Your task to perform on an android device: Search for 3d printed chess sets on Etsy. Image 0: 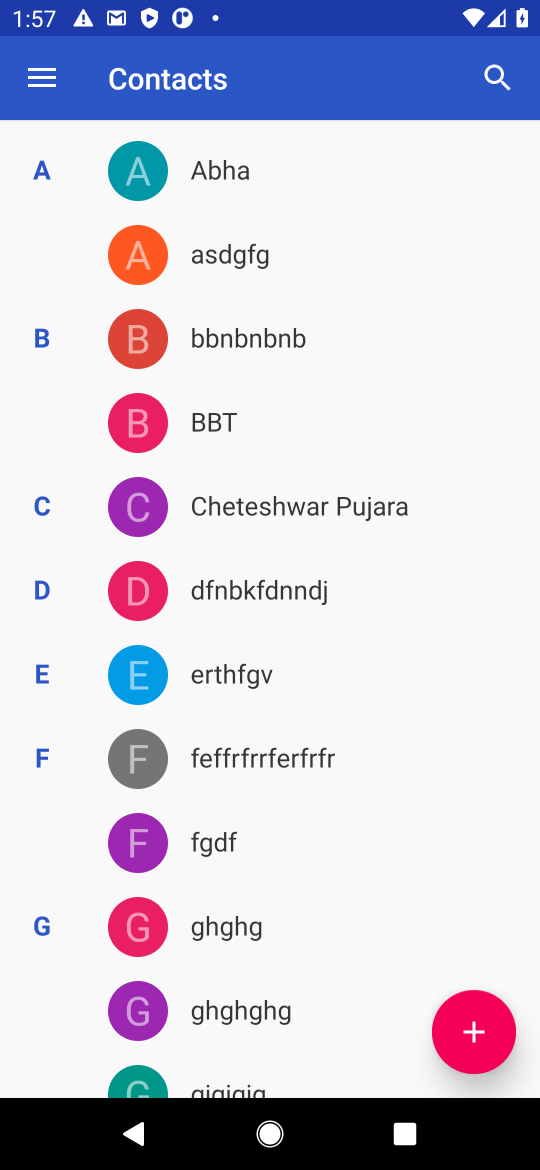
Step 0: press home button
Your task to perform on an android device: Search for 3d printed chess sets on Etsy. Image 1: 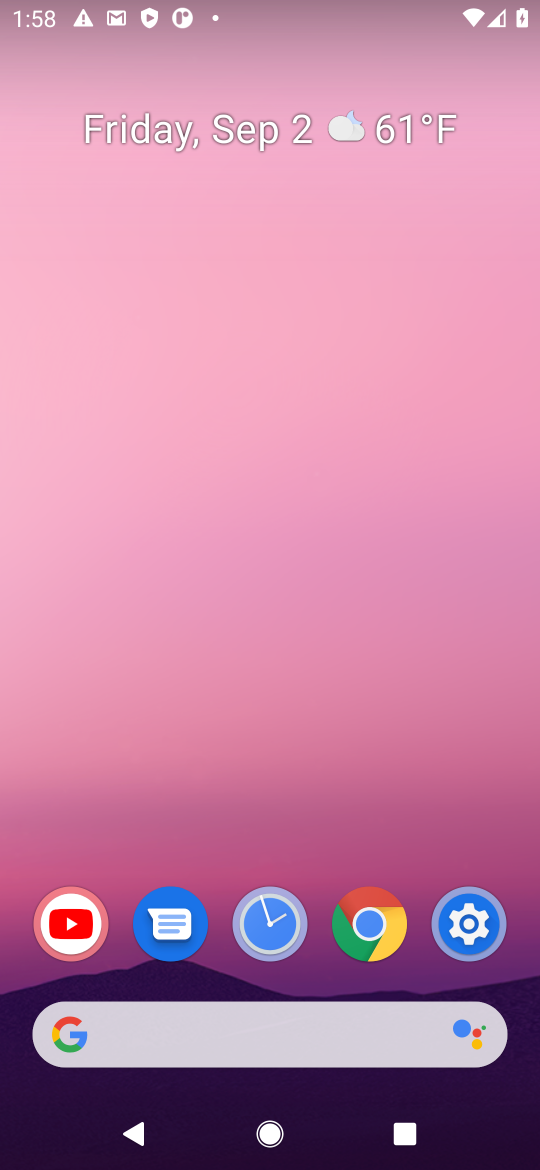
Step 1: click (382, 1025)
Your task to perform on an android device: Search for 3d printed chess sets on Etsy. Image 2: 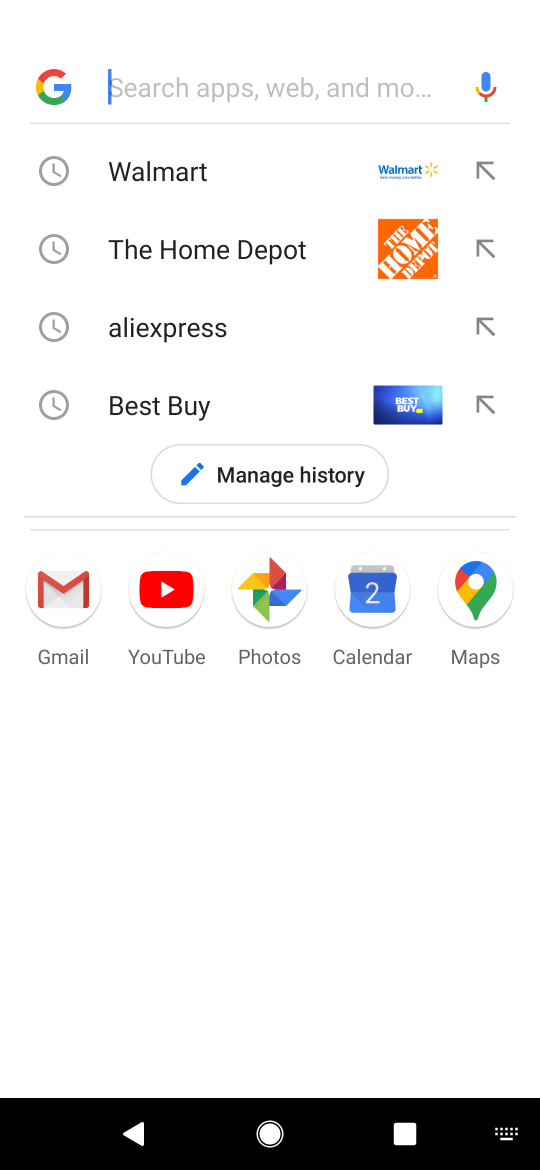
Step 2: press enter
Your task to perform on an android device: Search for 3d printed chess sets on Etsy. Image 3: 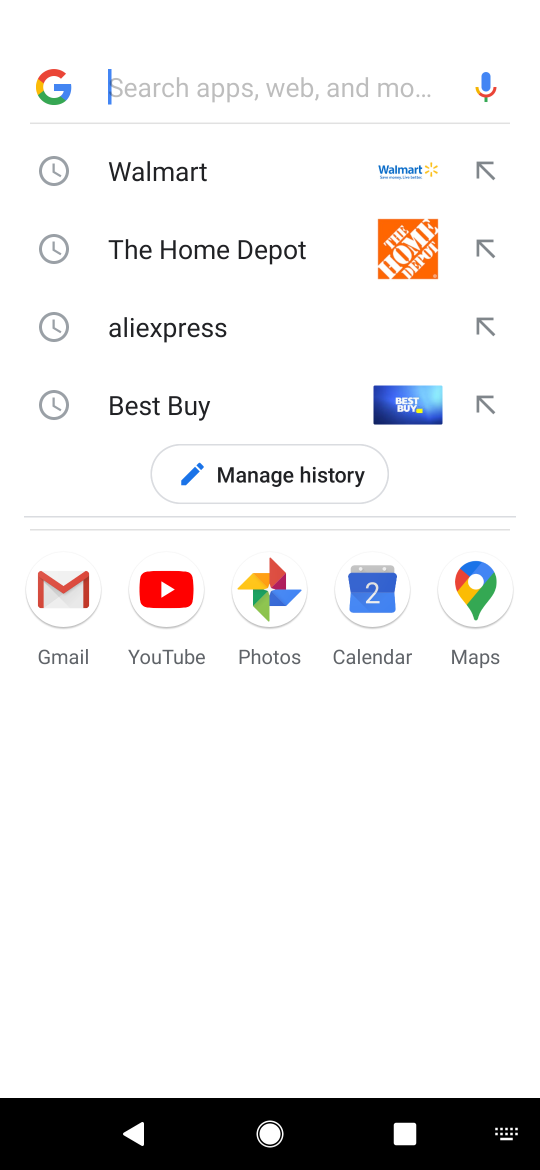
Step 3: type "etsy"
Your task to perform on an android device: Search for 3d printed chess sets on Etsy. Image 4: 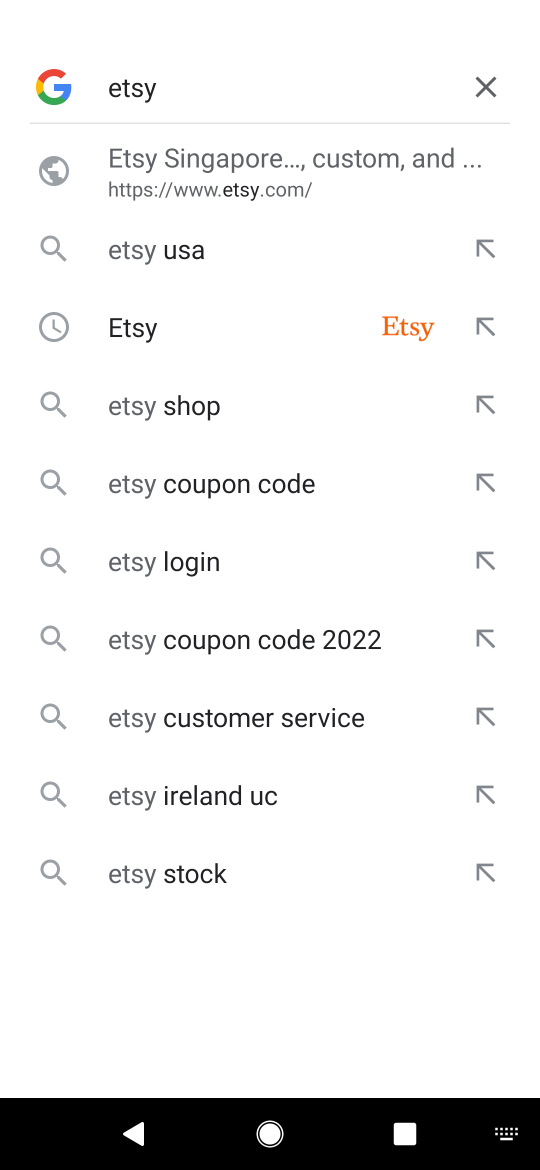
Step 4: click (295, 323)
Your task to perform on an android device: Search for 3d printed chess sets on Etsy. Image 5: 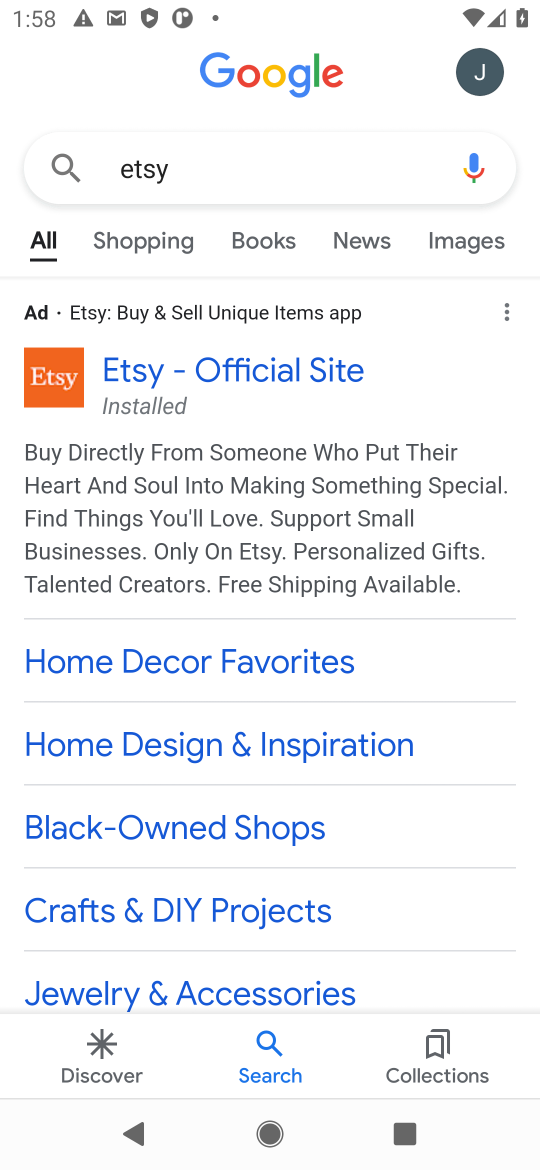
Step 5: click (308, 363)
Your task to perform on an android device: Search for 3d printed chess sets on Etsy. Image 6: 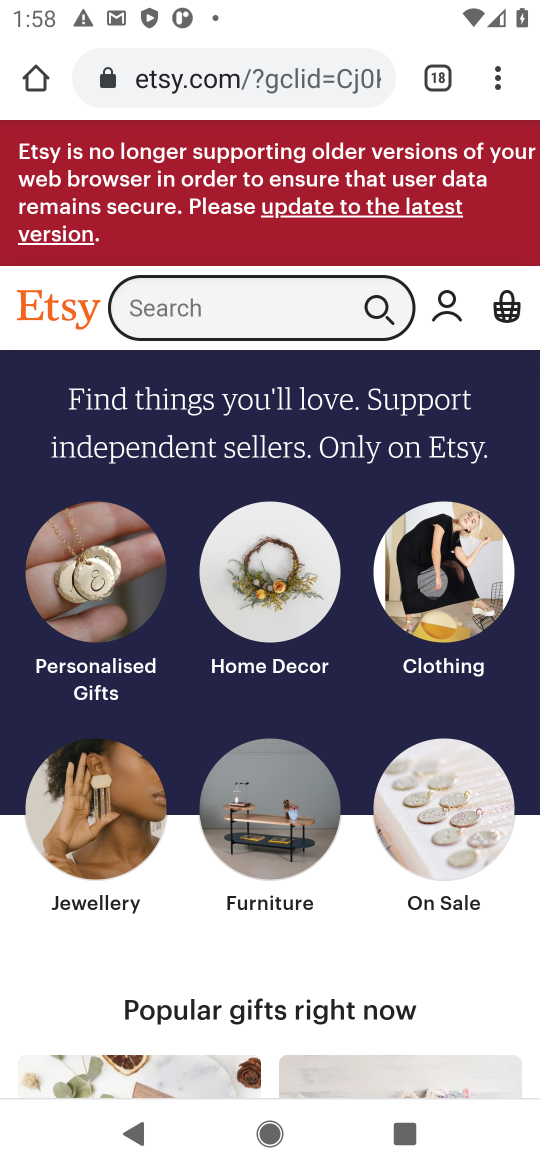
Step 6: click (271, 302)
Your task to perform on an android device: Search for 3d printed chess sets on Etsy. Image 7: 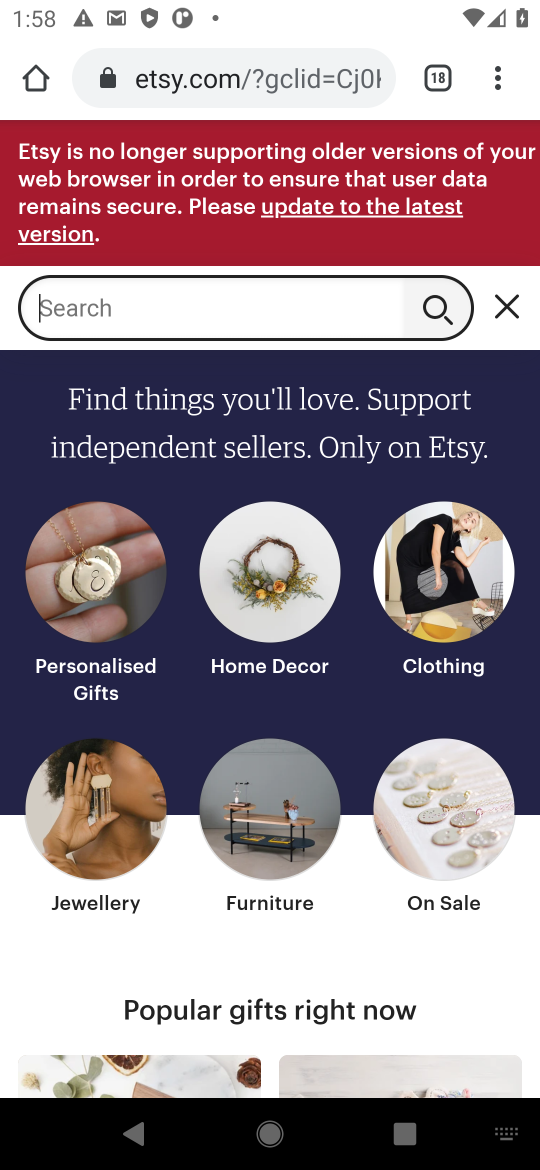
Step 7: type "3d printed chess sets"
Your task to perform on an android device: Search for 3d printed chess sets on Etsy. Image 8: 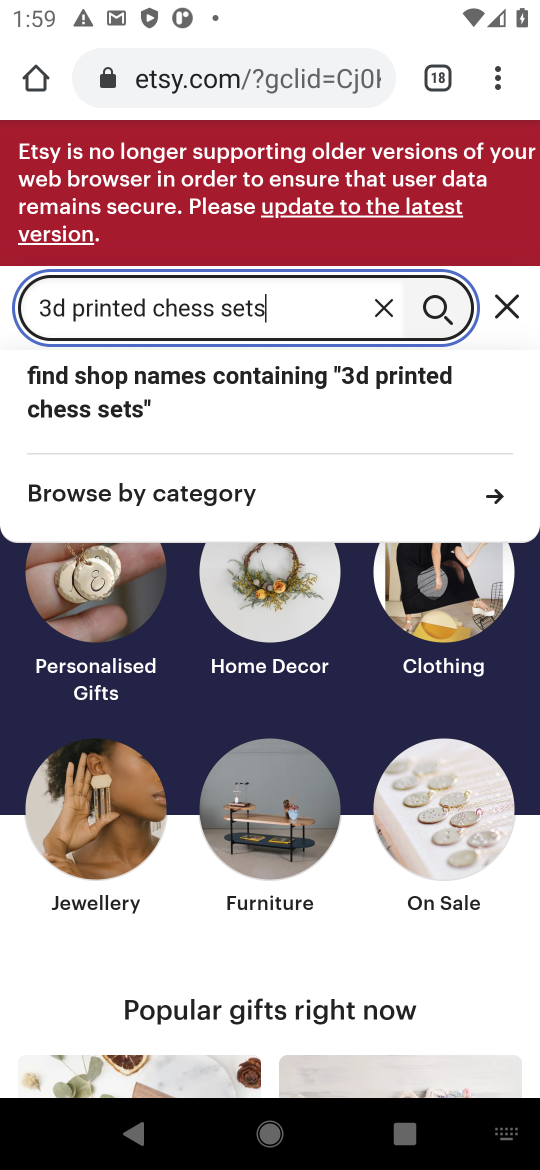
Step 8: click (430, 311)
Your task to perform on an android device: Search for 3d printed chess sets on Etsy. Image 9: 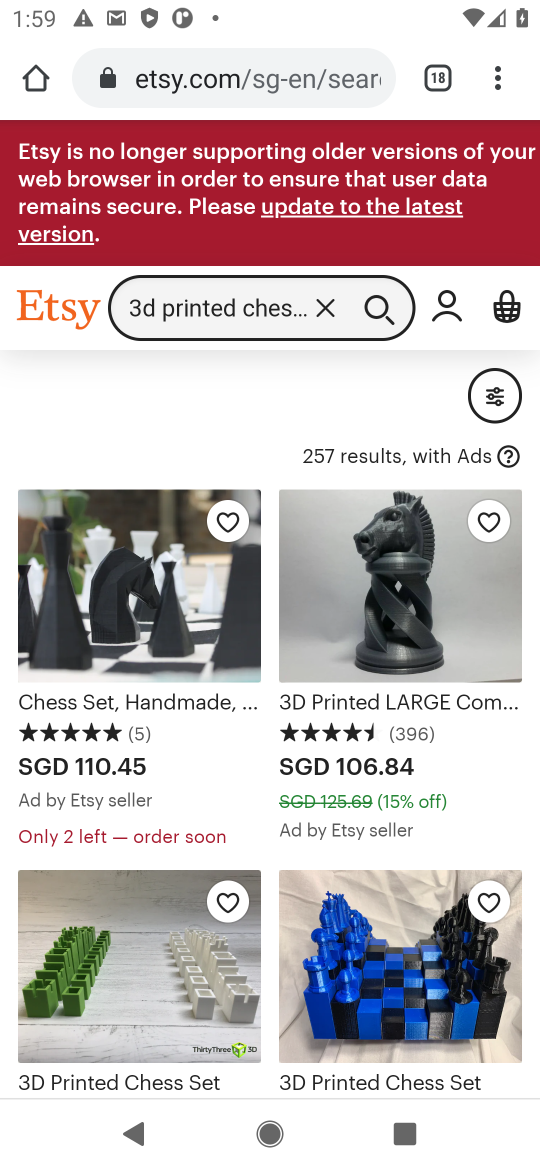
Step 9: task complete